Your task to perform on an android device: Check the weather Image 0: 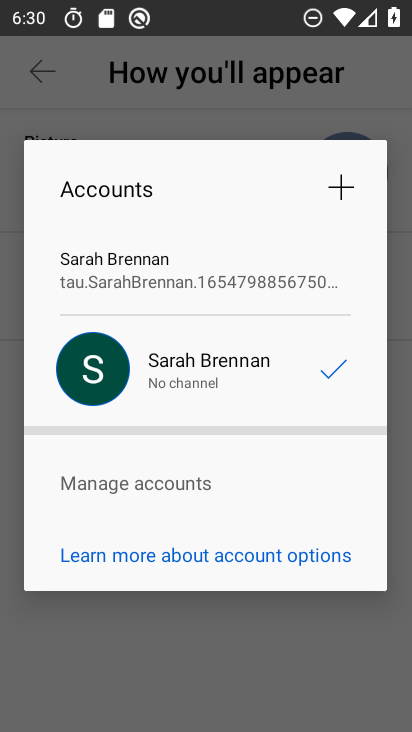
Step 0: press home button
Your task to perform on an android device: Check the weather Image 1: 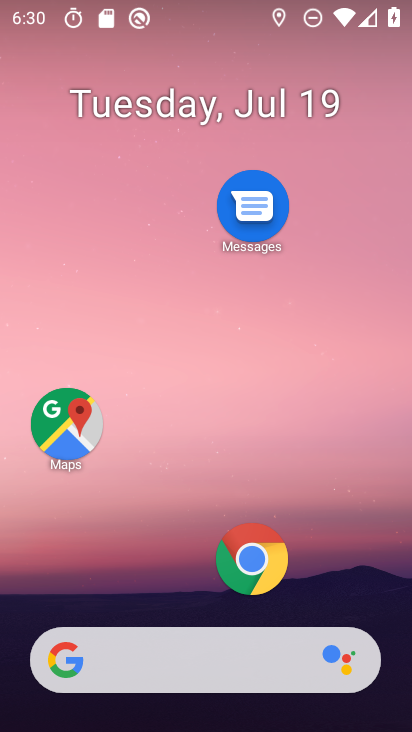
Step 1: click (141, 669)
Your task to perform on an android device: Check the weather Image 2: 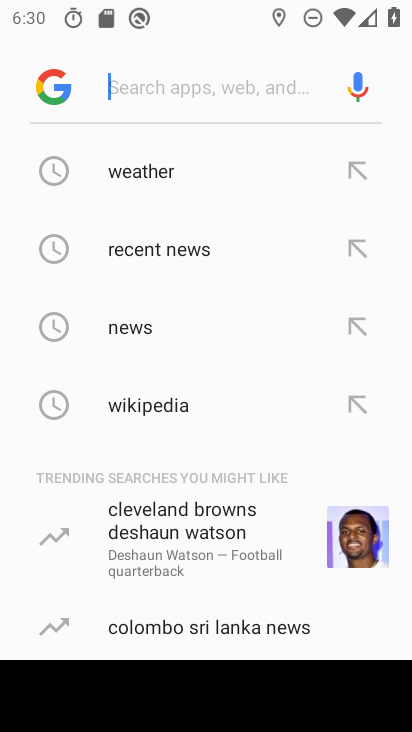
Step 2: click (143, 167)
Your task to perform on an android device: Check the weather Image 3: 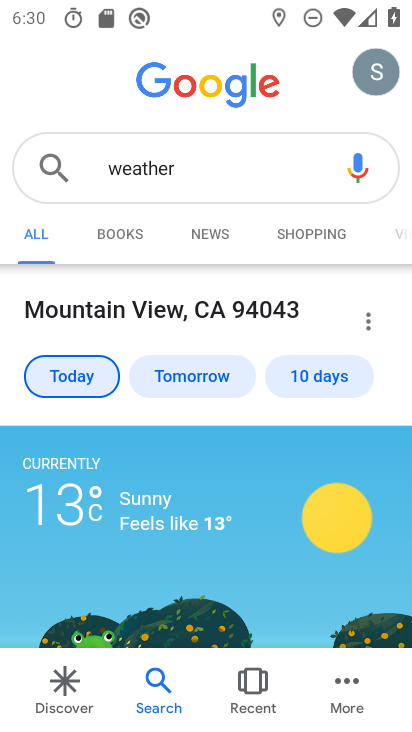
Step 3: task complete